Your task to perform on an android device: Is it going to rain this weekend? Image 0: 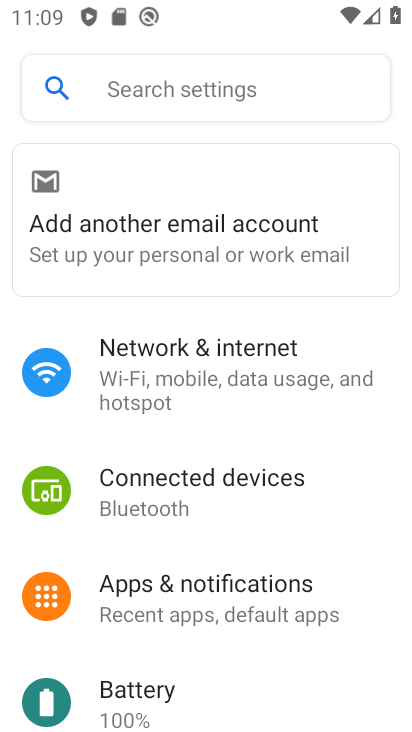
Step 0: task complete